Your task to perform on an android device: What's the weather? Image 0: 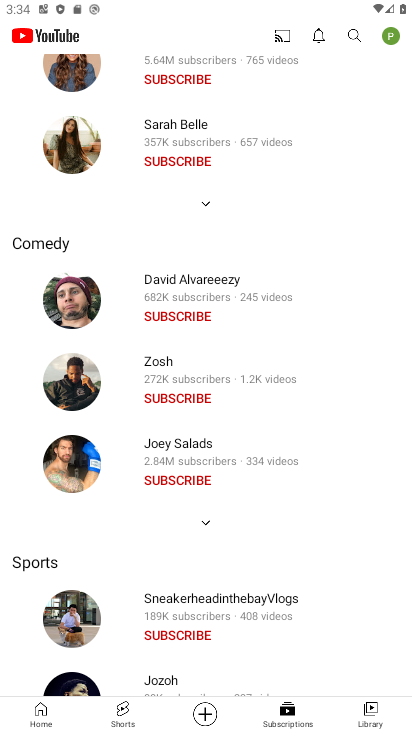
Step 0: press home button
Your task to perform on an android device: What's the weather? Image 1: 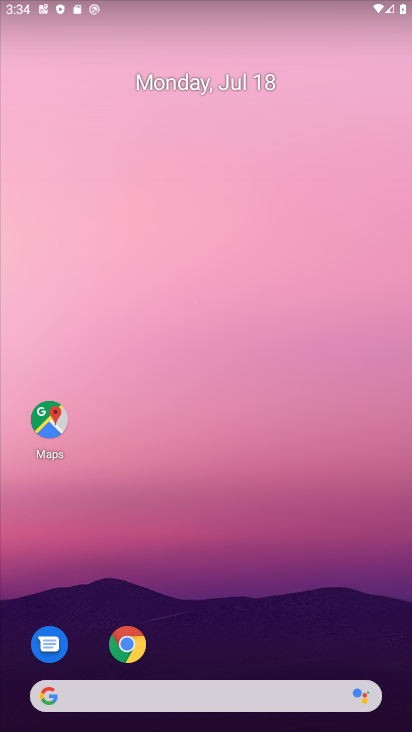
Step 1: drag from (10, 309) to (348, 280)
Your task to perform on an android device: What's the weather? Image 2: 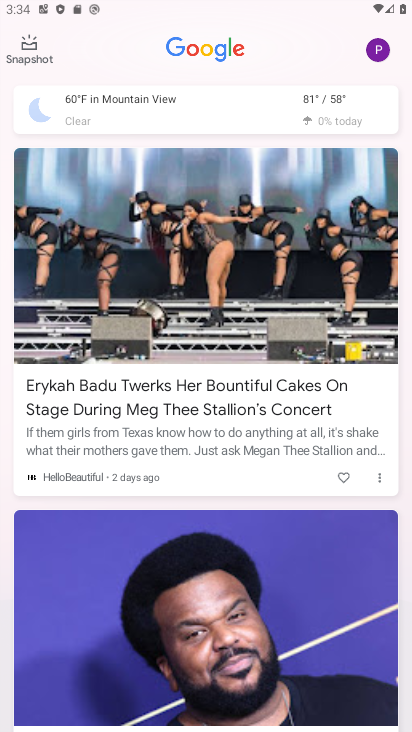
Step 2: click (336, 96)
Your task to perform on an android device: What's the weather? Image 3: 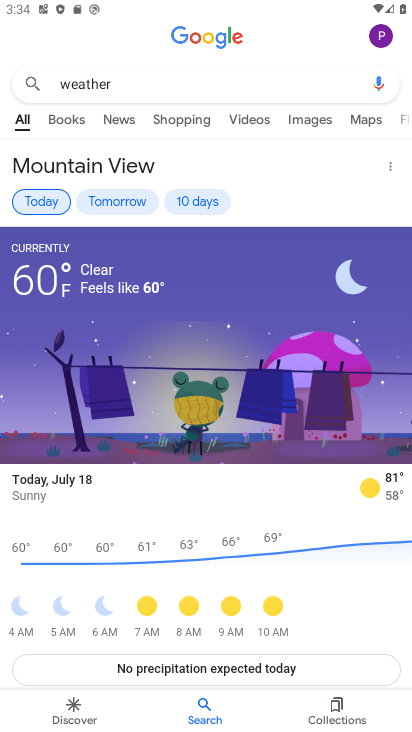
Step 3: task complete